Your task to perform on an android device: turn on airplane mode Image 0: 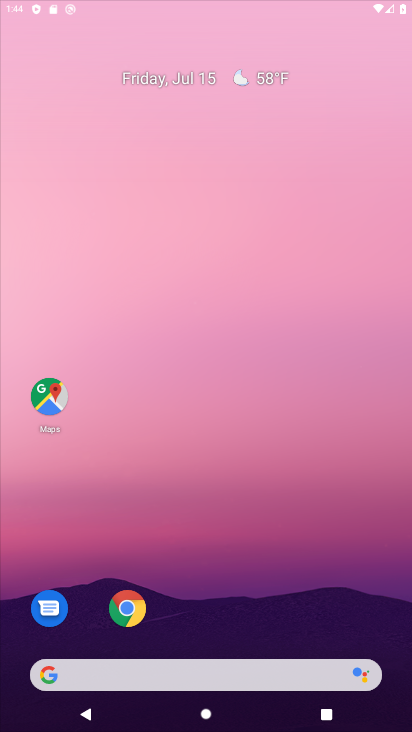
Step 0: drag from (256, 582) to (336, 118)
Your task to perform on an android device: turn on airplane mode Image 1: 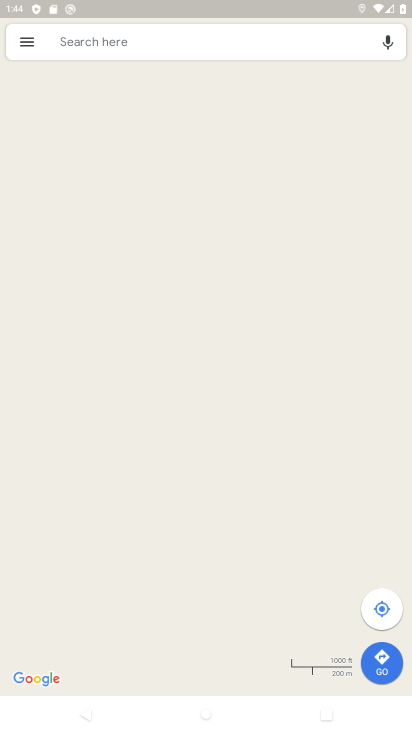
Step 1: press home button
Your task to perform on an android device: turn on airplane mode Image 2: 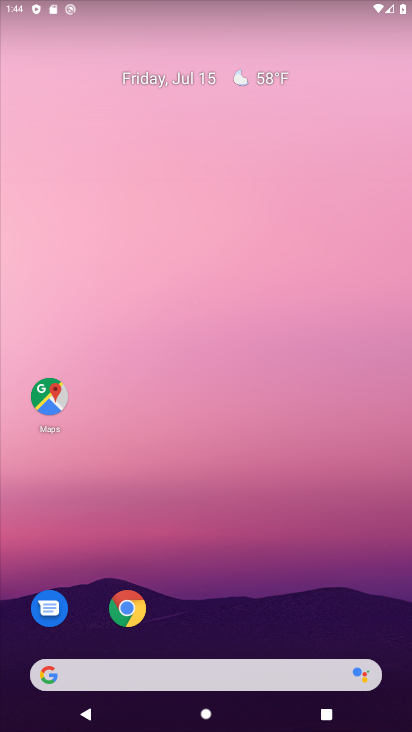
Step 2: drag from (221, 592) to (313, 140)
Your task to perform on an android device: turn on airplane mode Image 3: 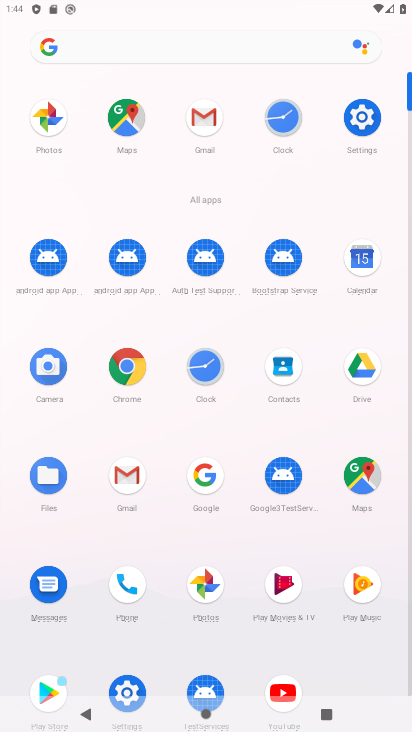
Step 3: drag from (167, 625) to (206, 440)
Your task to perform on an android device: turn on airplane mode Image 4: 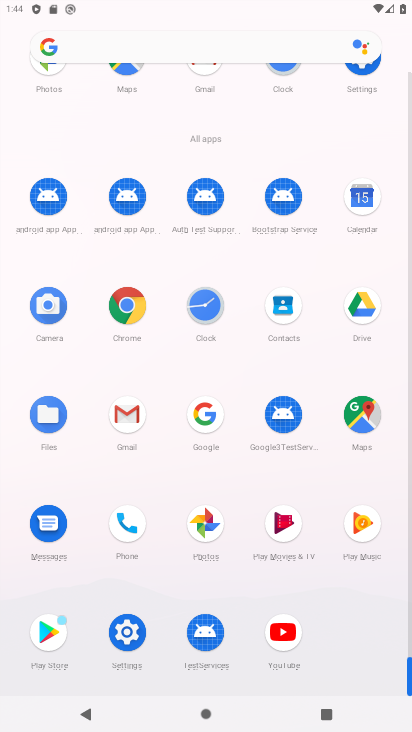
Step 4: click (122, 638)
Your task to perform on an android device: turn on airplane mode Image 5: 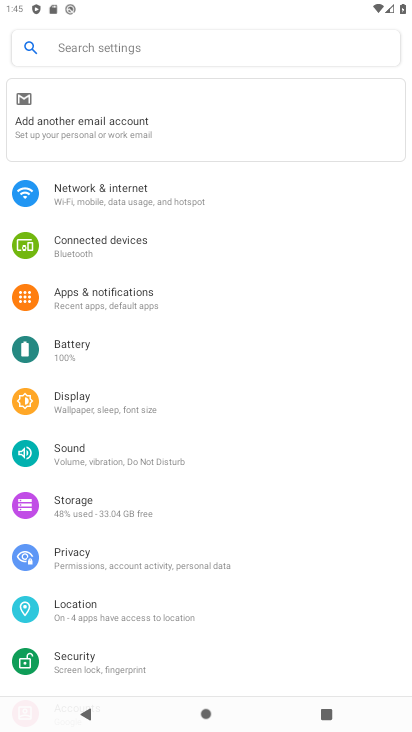
Step 5: click (143, 205)
Your task to perform on an android device: turn on airplane mode Image 6: 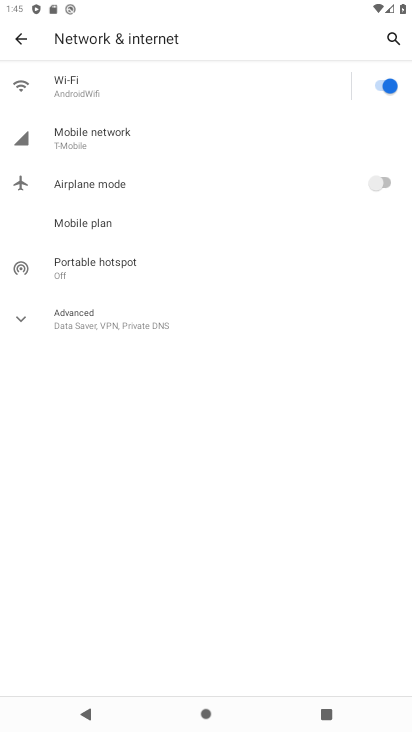
Step 6: click (394, 187)
Your task to perform on an android device: turn on airplane mode Image 7: 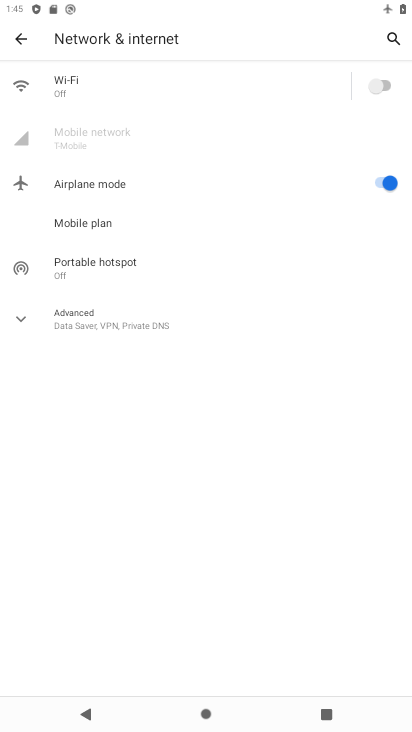
Step 7: task complete